Your task to perform on an android device: What's the weather going to be this weekend? Image 0: 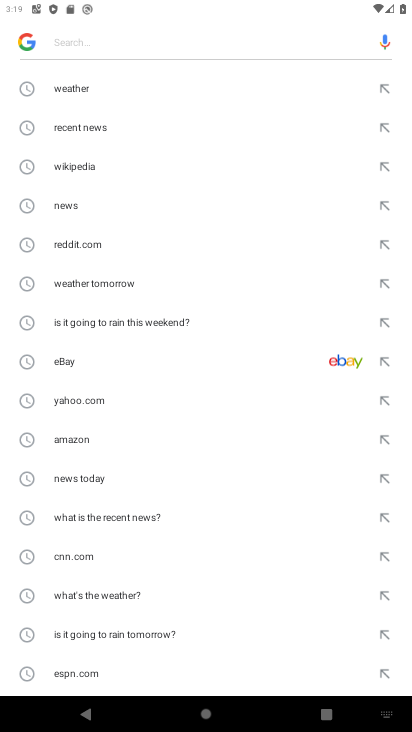
Step 0: press home button
Your task to perform on an android device: What's the weather going to be this weekend? Image 1: 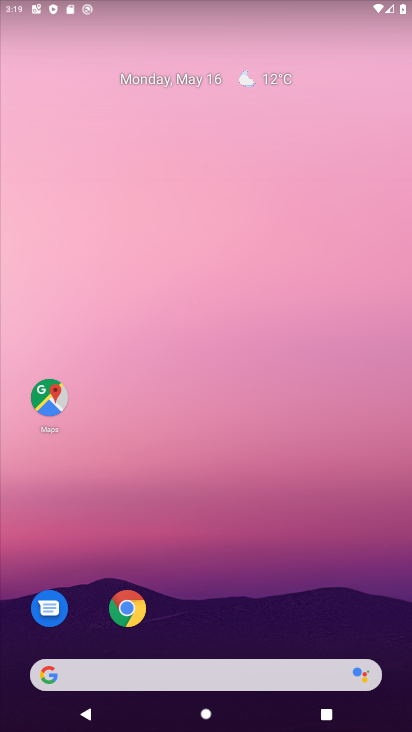
Step 1: click (133, 604)
Your task to perform on an android device: What's the weather going to be this weekend? Image 2: 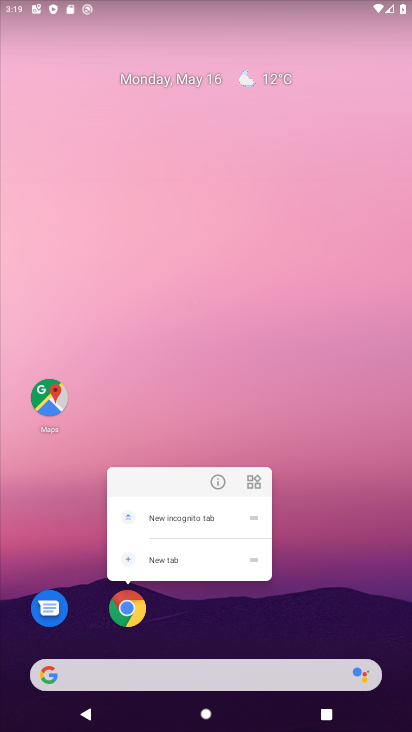
Step 2: click (211, 474)
Your task to perform on an android device: What's the weather going to be this weekend? Image 3: 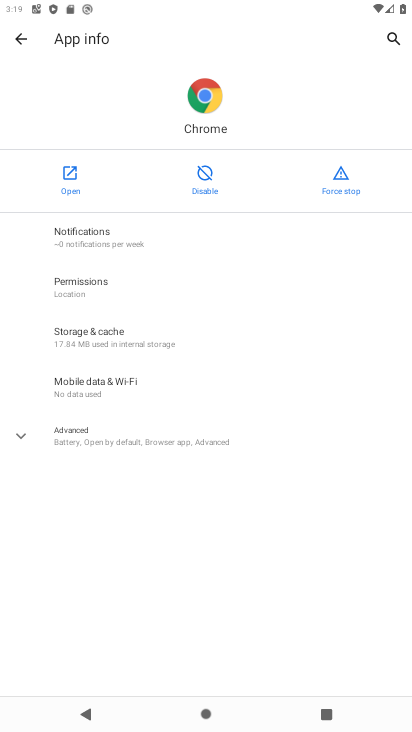
Step 3: click (81, 186)
Your task to perform on an android device: What's the weather going to be this weekend? Image 4: 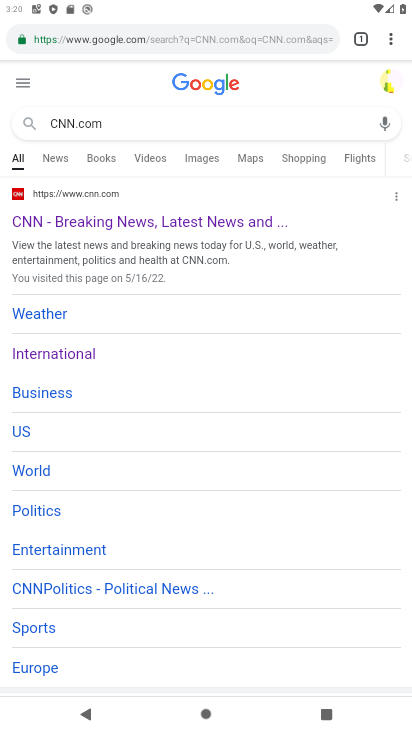
Step 4: click (126, 42)
Your task to perform on an android device: What's the weather going to be this weekend? Image 5: 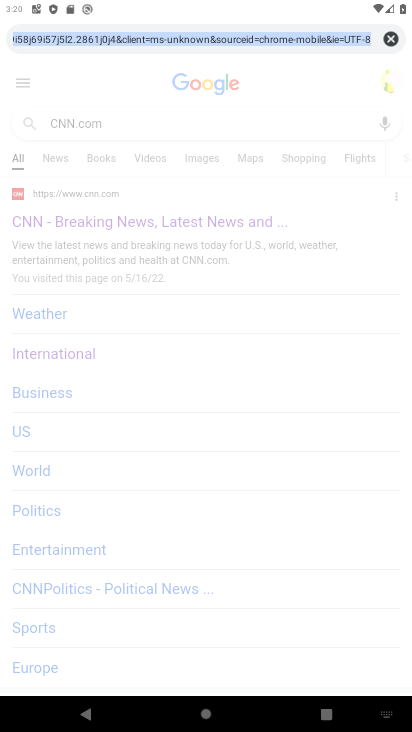
Step 5: type "What's the weather going to be this weekend?"
Your task to perform on an android device: What's the weather going to be this weekend? Image 6: 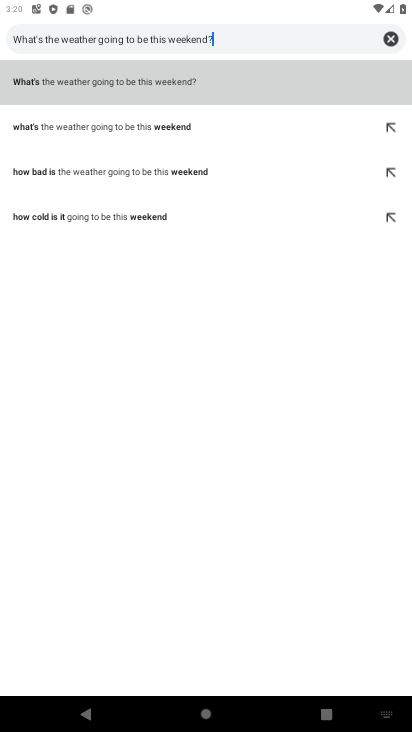
Step 6: click (317, 90)
Your task to perform on an android device: What's the weather going to be this weekend? Image 7: 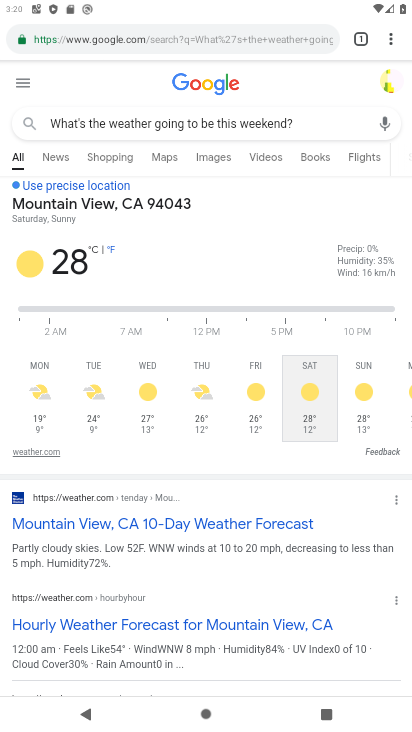
Step 7: task complete